Your task to perform on an android device: uninstall "Facebook" Image 0: 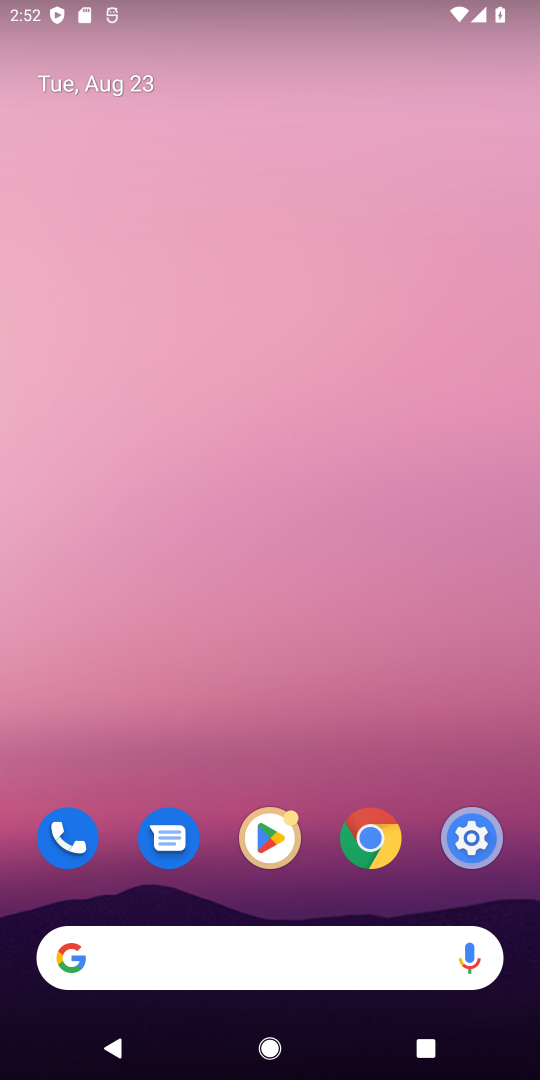
Step 0: click (281, 854)
Your task to perform on an android device: uninstall "Facebook" Image 1: 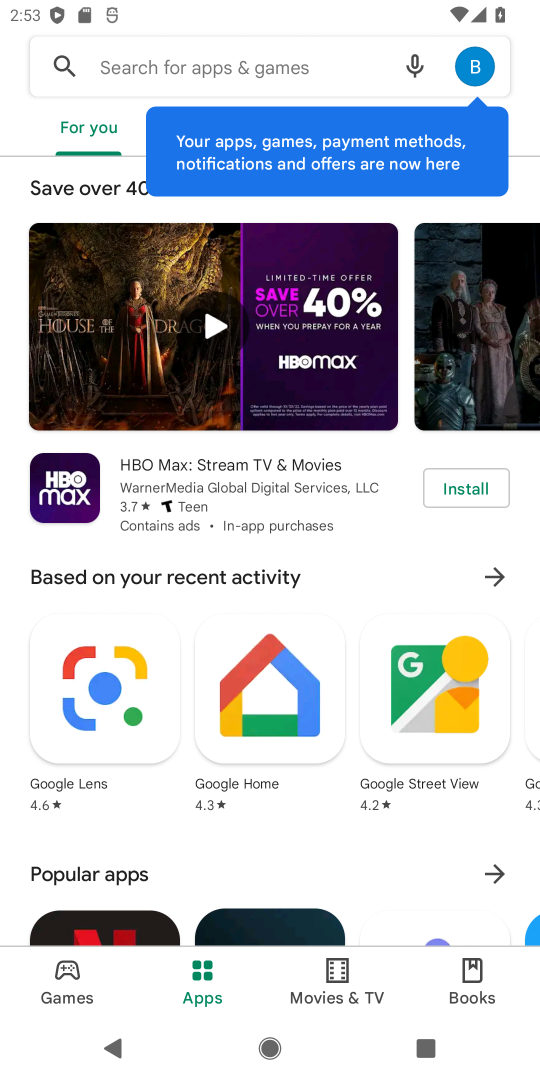
Step 1: click (127, 78)
Your task to perform on an android device: uninstall "Facebook" Image 2: 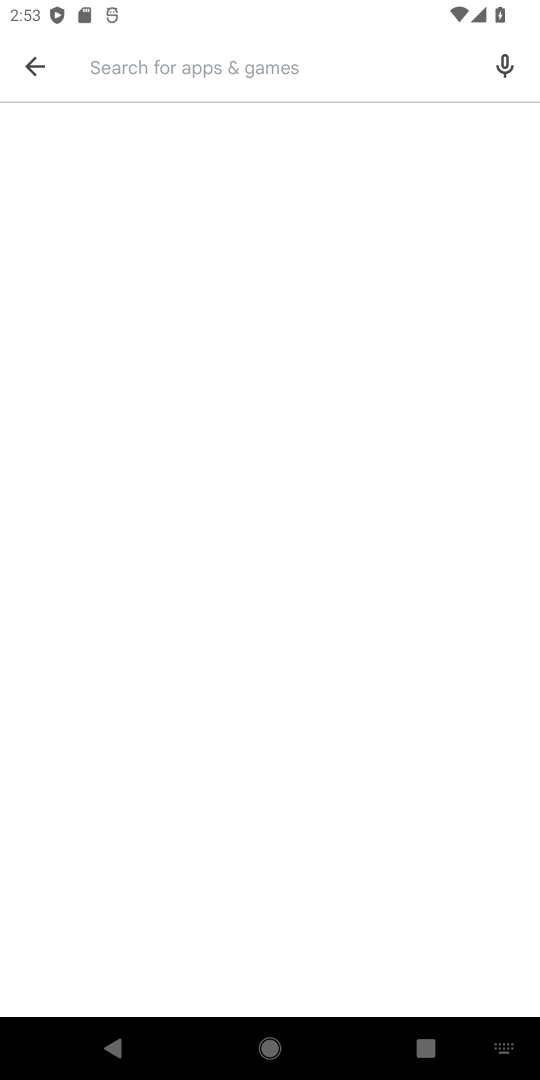
Step 2: type "Facebook"
Your task to perform on an android device: uninstall "Facebook" Image 3: 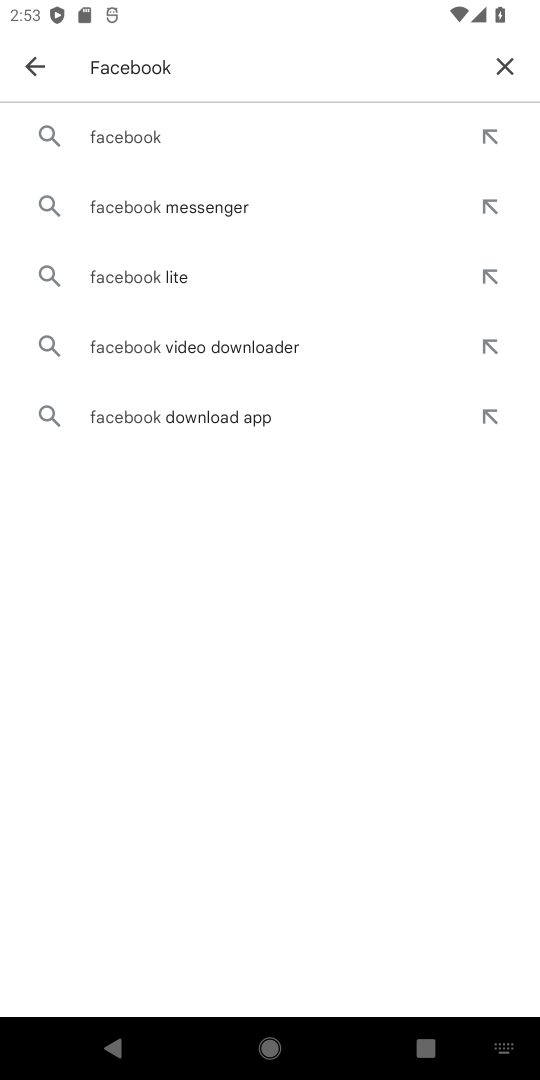
Step 3: click (219, 148)
Your task to perform on an android device: uninstall "Facebook" Image 4: 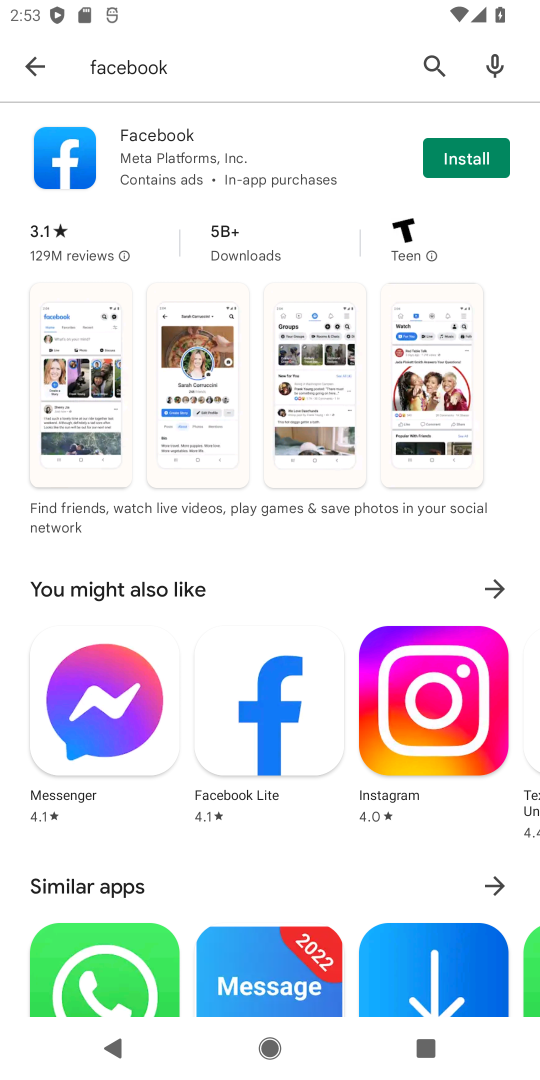
Step 4: task complete